Your task to perform on an android device: empty trash in google photos Image 0: 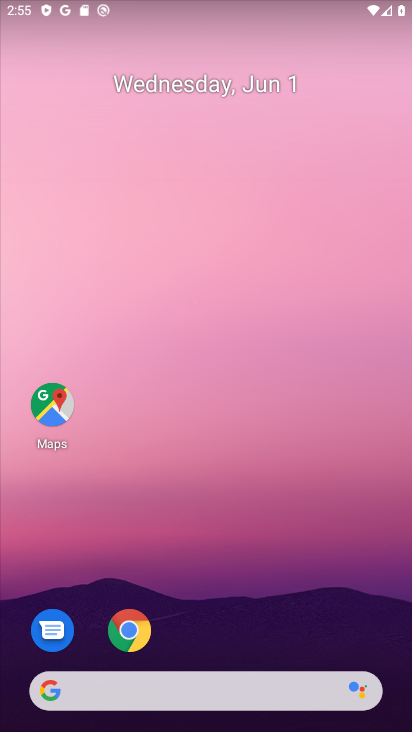
Step 0: drag from (233, 630) to (303, 59)
Your task to perform on an android device: empty trash in google photos Image 1: 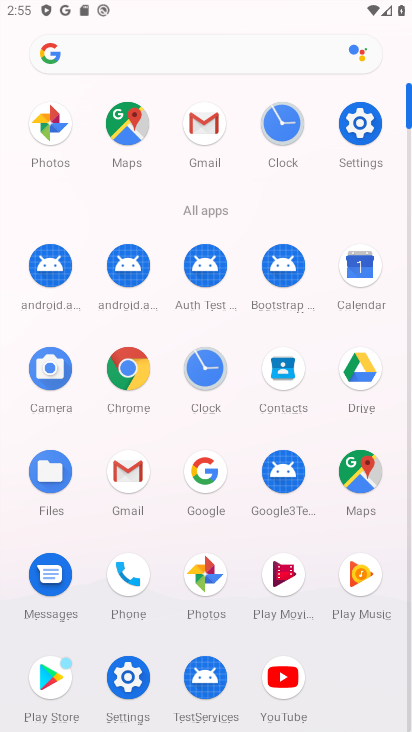
Step 1: click (201, 572)
Your task to perform on an android device: empty trash in google photos Image 2: 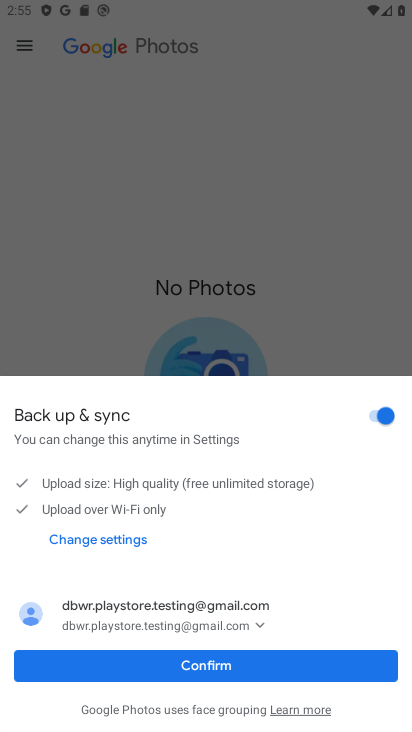
Step 2: click (200, 653)
Your task to perform on an android device: empty trash in google photos Image 3: 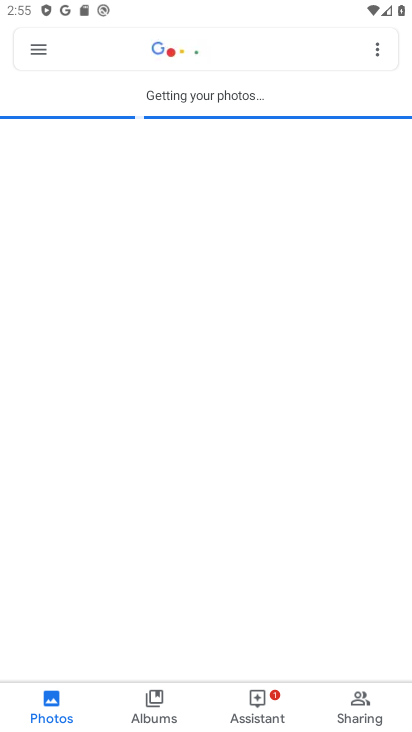
Step 3: click (36, 39)
Your task to perform on an android device: empty trash in google photos Image 4: 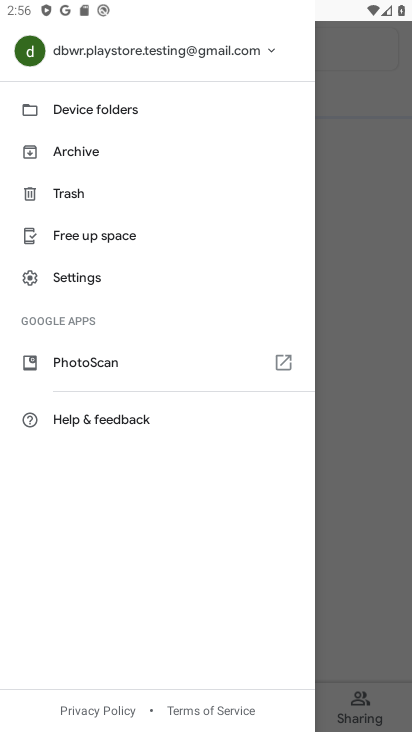
Step 4: click (75, 199)
Your task to perform on an android device: empty trash in google photos Image 5: 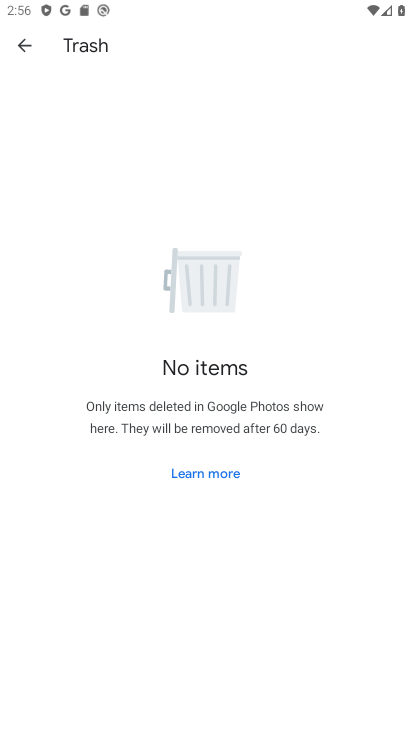
Step 5: task complete